Your task to perform on an android device: Open the phone app and click the voicemail tab. Image 0: 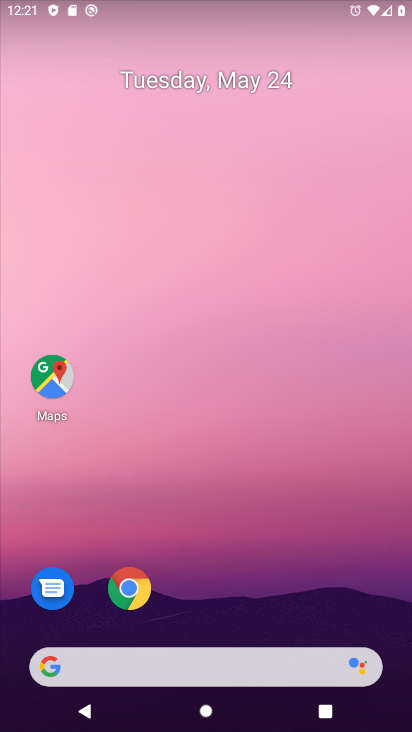
Step 0: drag from (190, 643) to (282, 98)
Your task to perform on an android device: Open the phone app and click the voicemail tab. Image 1: 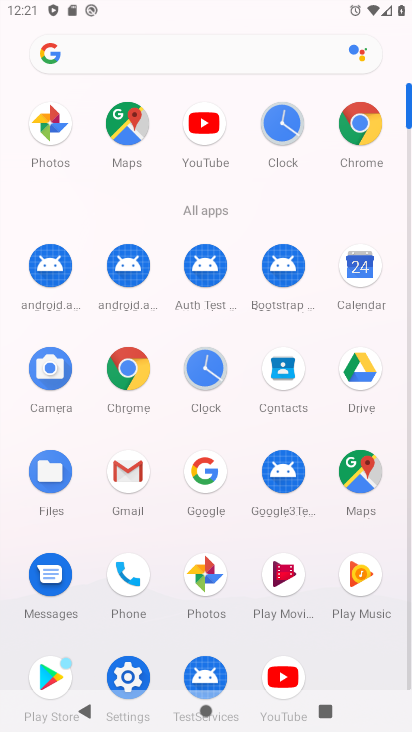
Step 1: click (134, 594)
Your task to perform on an android device: Open the phone app and click the voicemail tab. Image 2: 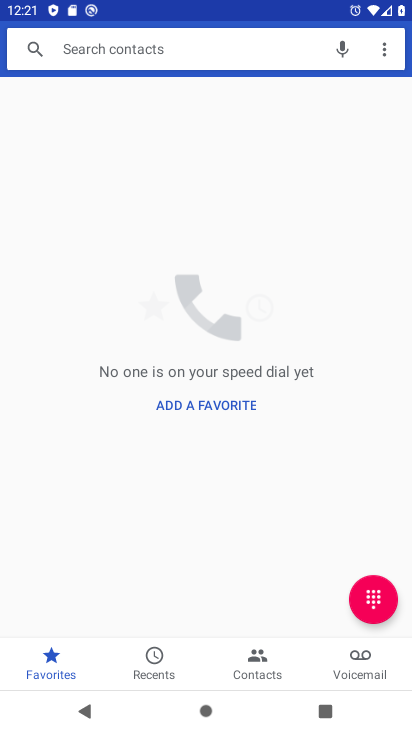
Step 2: click (371, 667)
Your task to perform on an android device: Open the phone app and click the voicemail tab. Image 3: 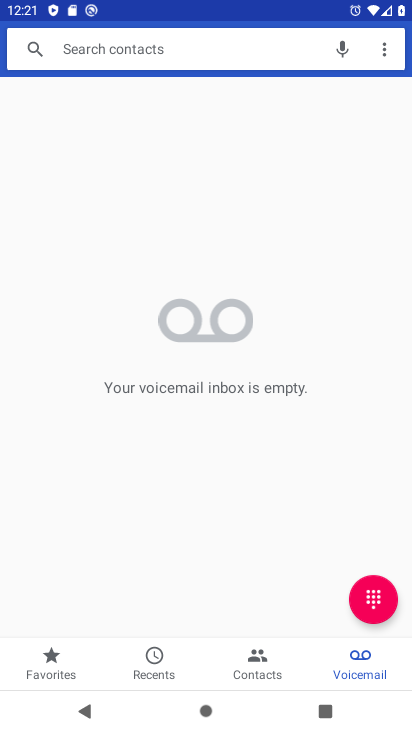
Step 3: task complete